Your task to perform on an android device: Show me the alarms in the clock app Image 0: 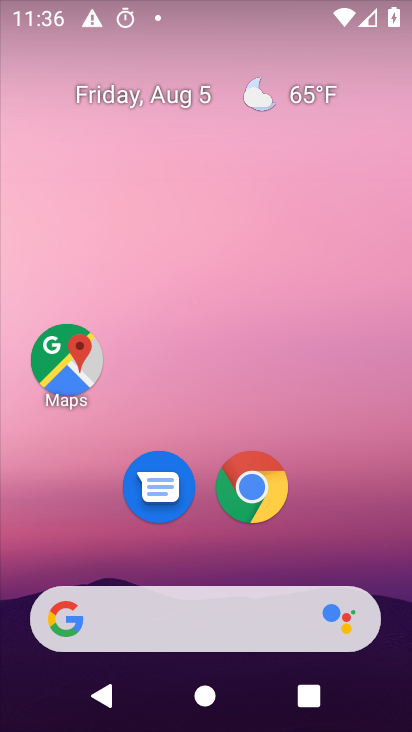
Step 0: drag from (218, 519) to (265, 81)
Your task to perform on an android device: Show me the alarms in the clock app Image 1: 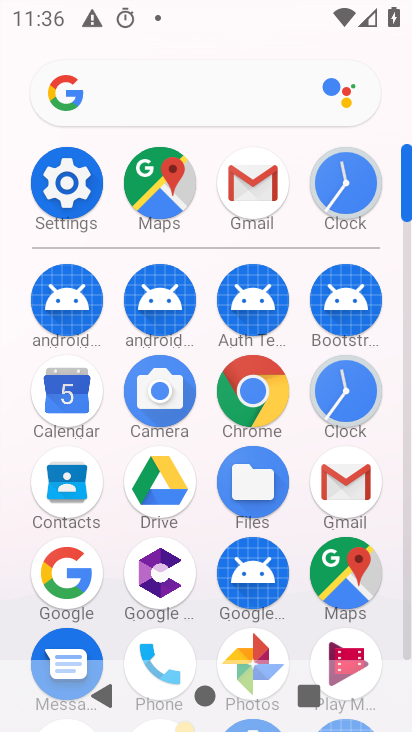
Step 1: click (354, 184)
Your task to perform on an android device: Show me the alarms in the clock app Image 2: 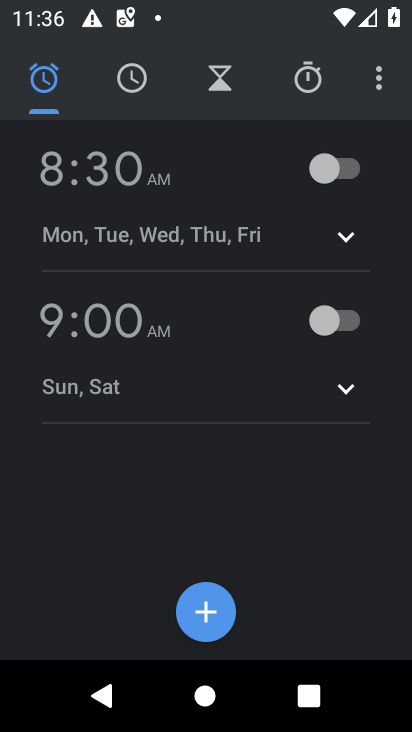
Step 2: task complete